Your task to perform on an android device: Turn on the flashlight Image 0: 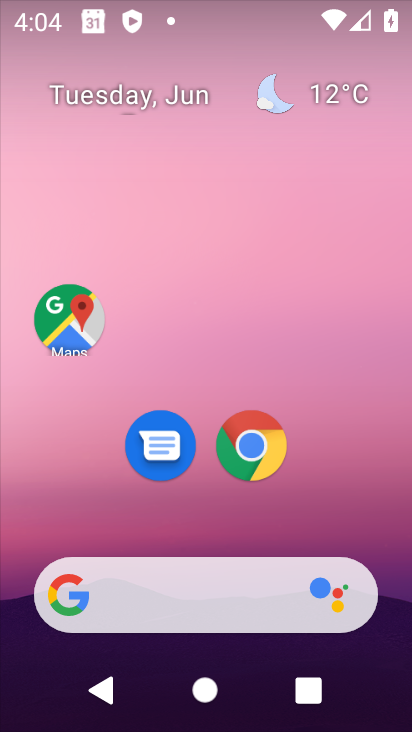
Step 0: click (405, 135)
Your task to perform on an android device: Turn on the flashlight Image 1: 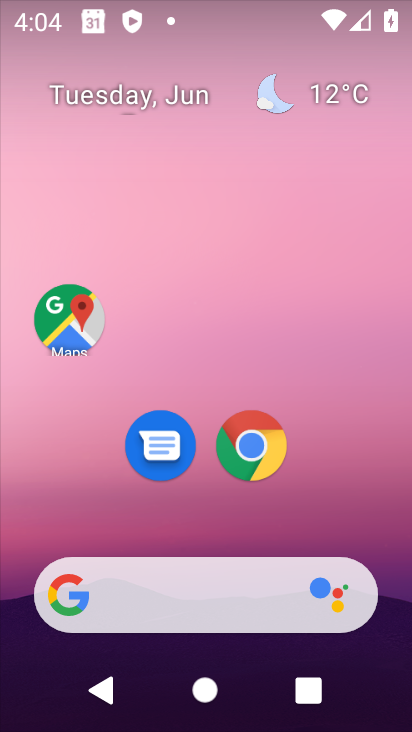
Step 1: drag from (358, 495) to (393, 9)
Your task to perform on an android device: Turn on the flashlight Image 2: 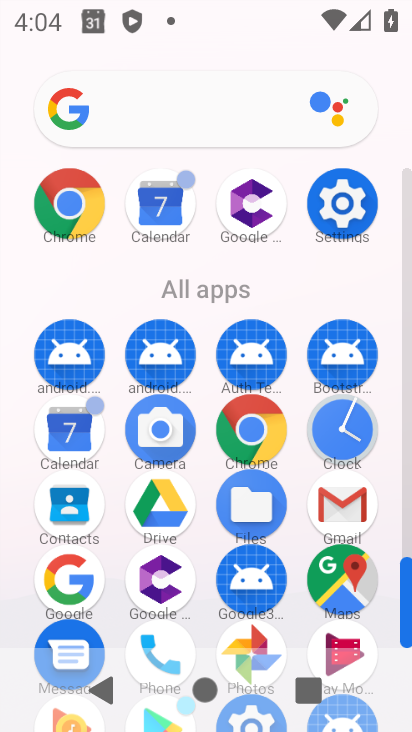
Step 2: click (349, 176)
Your task to perform on an android device: Turn on the flashlight Image 3: 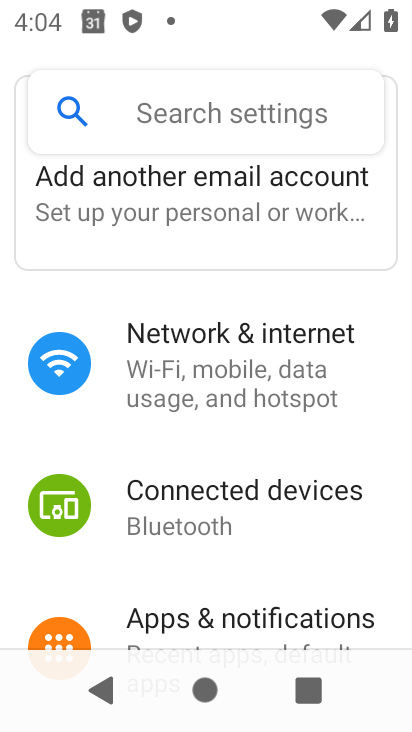
Step 3: task complete